Your task to perform on an android device: change the clock display to analog Image 0: 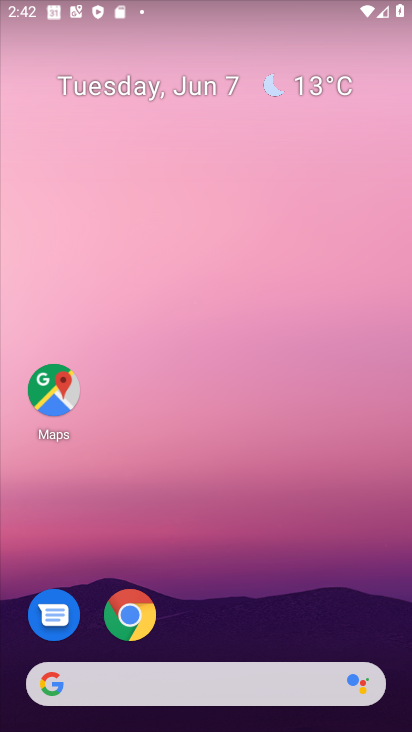
Step 0: drag from (212, 658) to (286, 243)
Your task to perform on an android device: change the clock display to analog Image 1: 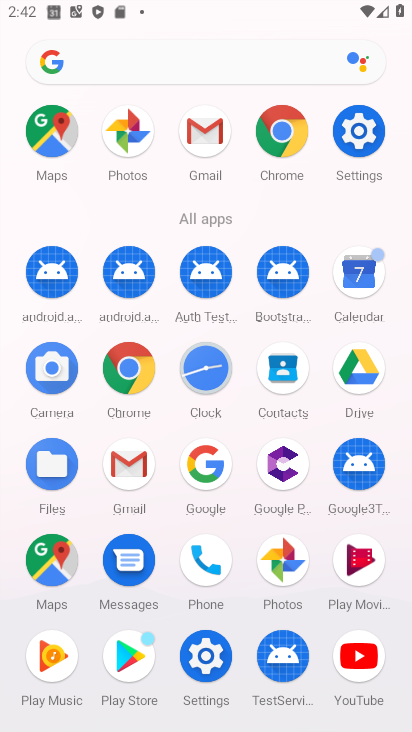
Step 1: click (195, 362)
Your task to perform on an android device: change the clock display to analog Image 2: 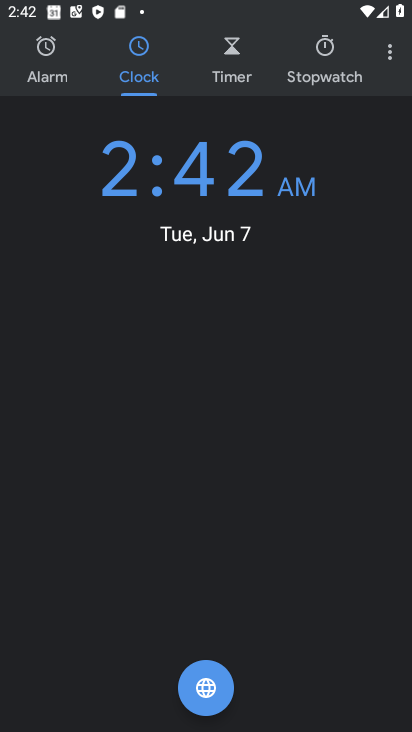
Step 2: click (373, 56)
Your task to perform on an android device: change the clock display to analog Image 3: 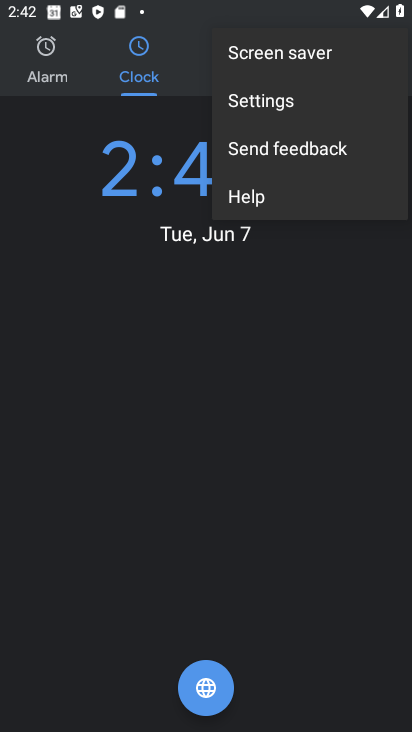
Step 3: click (337, 109)
Your task to perform on an android device: change the clock display to analog Image 4: 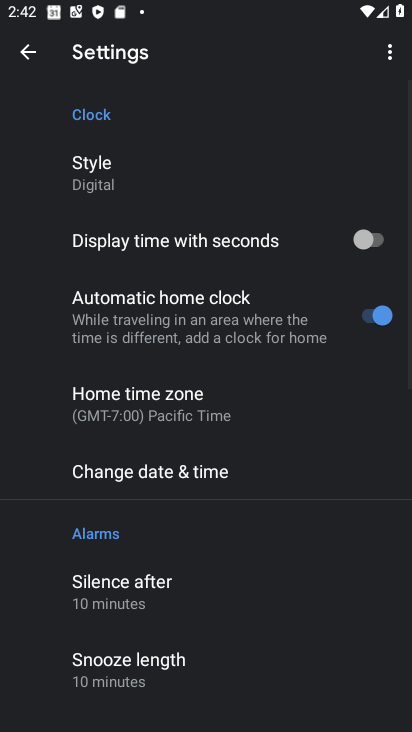
Step 4: click (307, 172)
Your task to perform on an android device: change the clock display to analog Image 5: 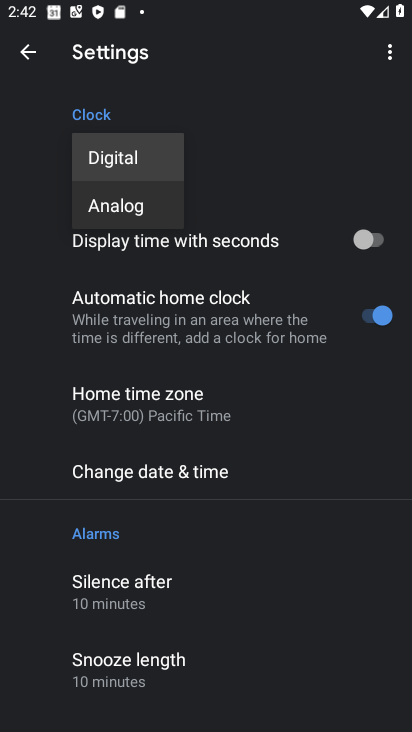
Step 5: click (144, 226)
Your task to perform on an android device: change the clock display to analog Image 6: 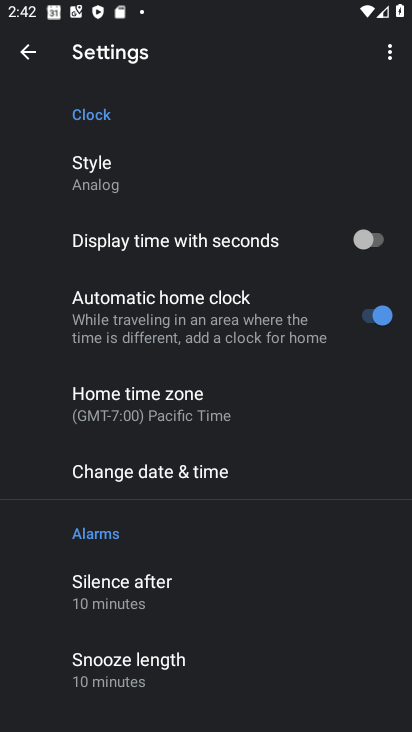
Step 6: task complete